Your task to perform on an android device: Open Reddit.com Image 0: 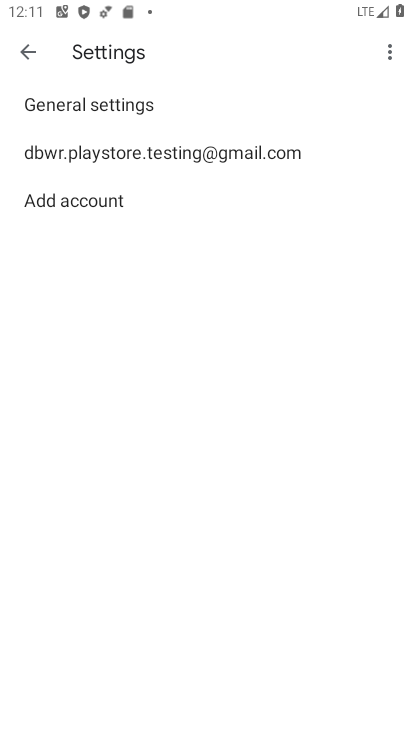
Step 0: press home button
Your task to perform on an android device: Open Reddit.com Image 1: 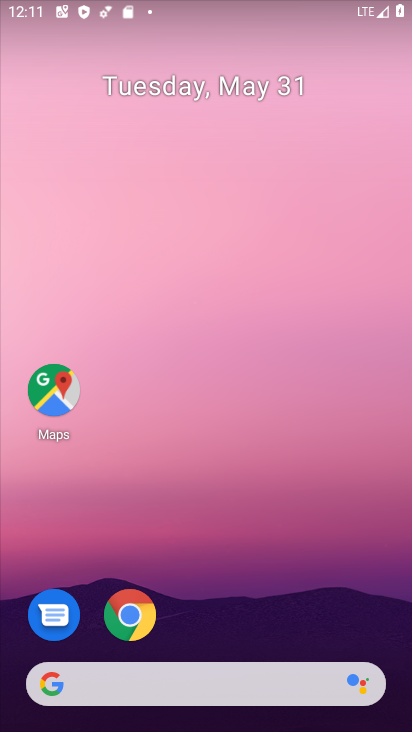
Step 1: drag from (237, 514) to (252, 143)
Your task to perform on an android device: Open Reddit.com Image 2: 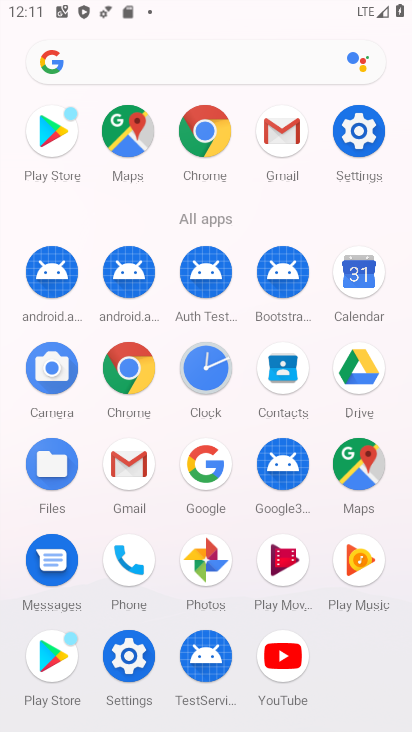
Step 2: click (210, 131)
Your task to perform on an android device: Open Reddit.com Image 3: 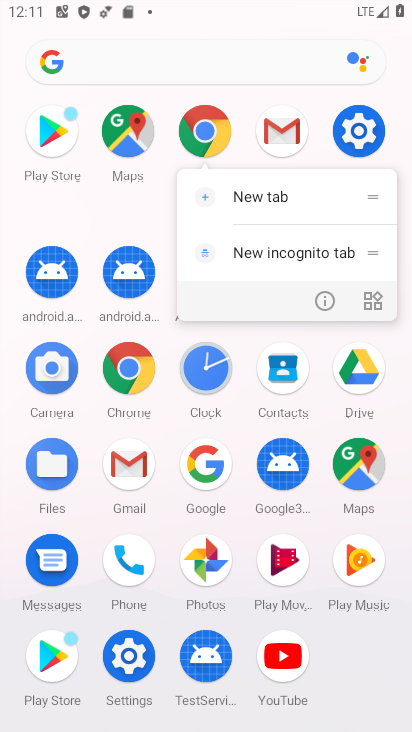
Step 3: click (210, 136)
Your task to perform on an android device: Open Reddit.com Image 4: 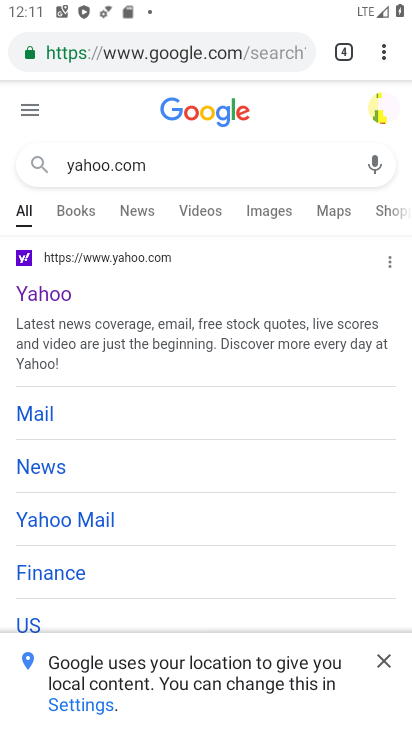
Step 4: click (196, 57)
Your task to perform on an android device: Open Reddit.com Image 5: 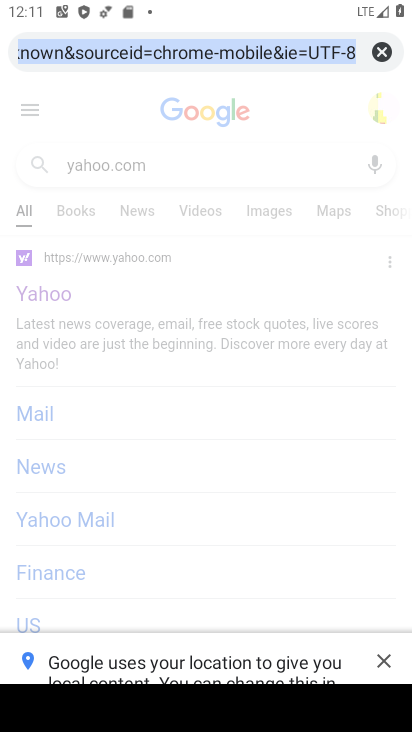
Step 5: type "Reddit.com"
Your task to perform on an android device: Open Reddit.com Image 6: 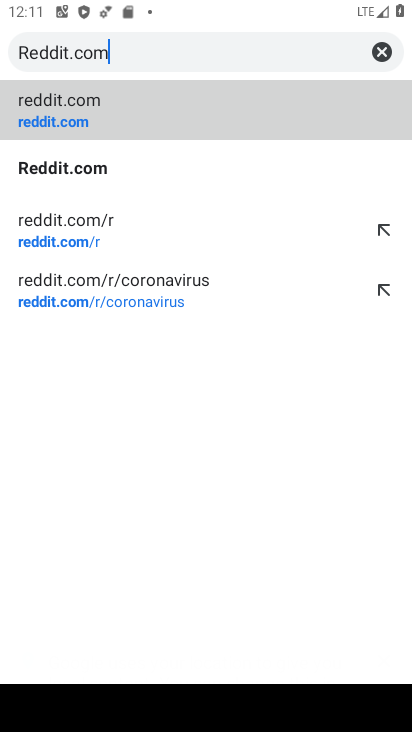
Step 6: click (143, 133)
Your task to perform on an android device: Open Reddit.com Image 7: 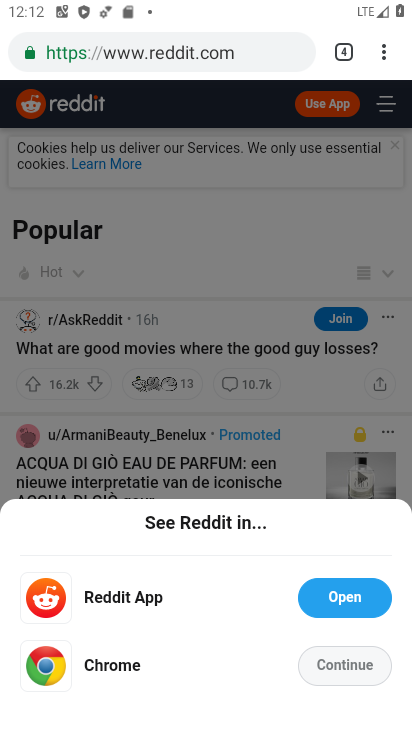
Step 7: task complete